Your task to perform on an android device: change notifications settings Image 0: 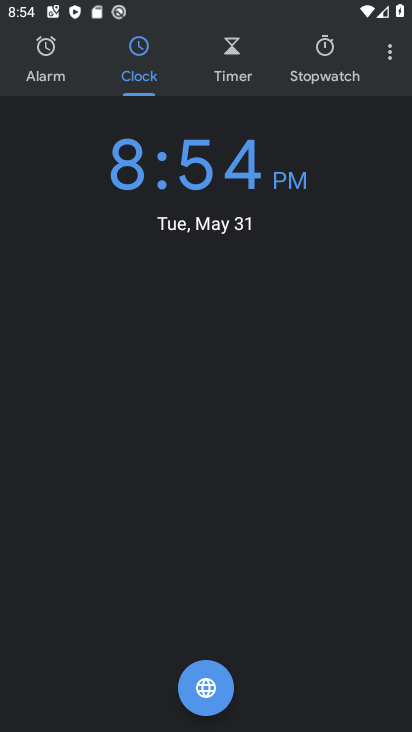
Step 0: press home button
Your task to perform on an android device: change notifications settings Image 1: 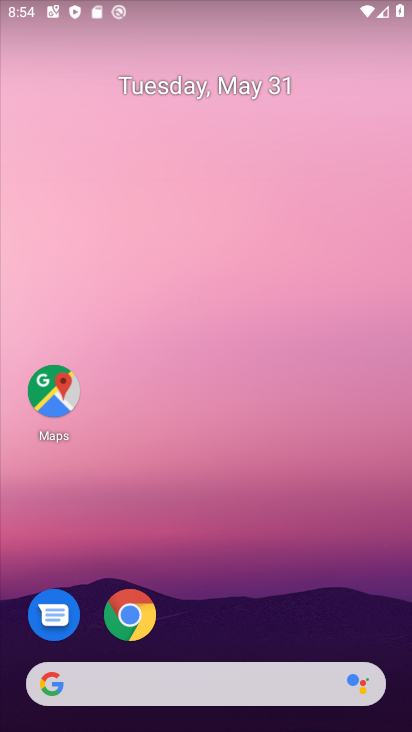
Step 1: drag from (331, 601) to (252, 46)
Your task to perform on an android device: change notifications settings Image 2: 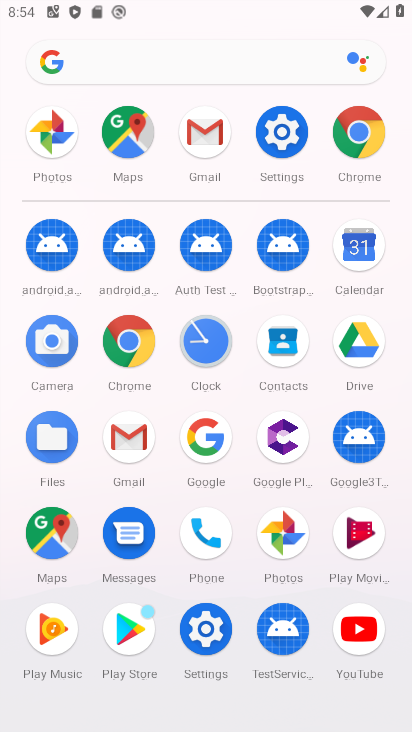
Step 2: click (205, 623)
Your task to perform on an android device: change notifications settings Image 3: 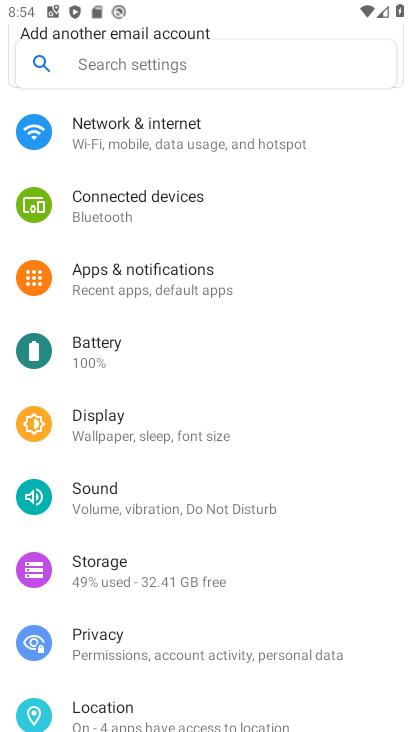
Step 3: click (164, 278)
Your task to perform on an android device: change notifications settings Image 4: 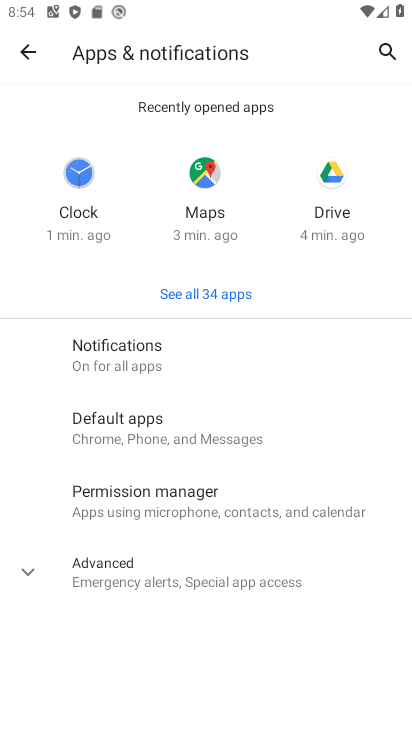
Step 4: click (131, 348)
Your task to perform on an android device: change notifications settings Image 5: 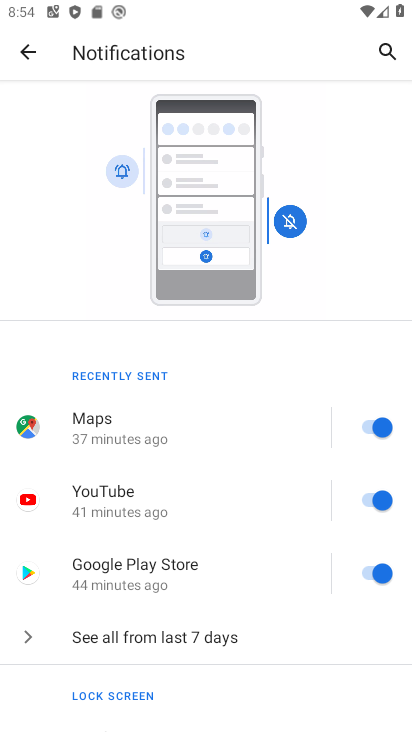
Step 5: drag from (281, 646) to (268, 226)
Your task to perform on an android device: change notifications settings Image 6: 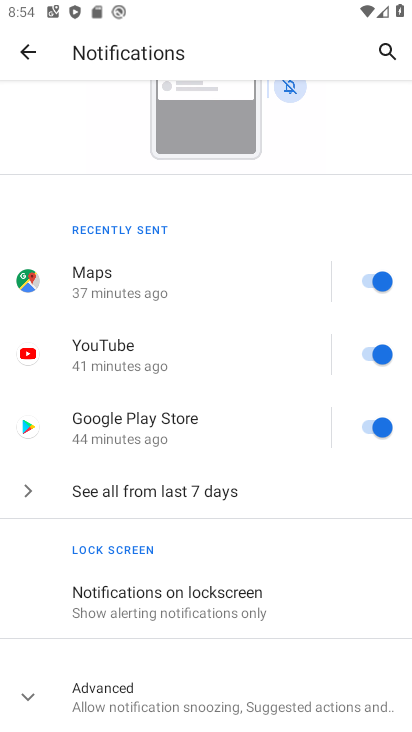
Step 6: click (24, 691)
Your task to perform on an android device: change notifications settings Image 7: 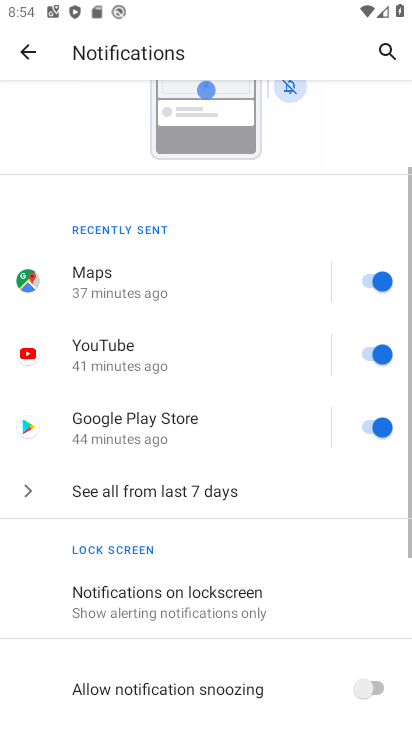
Step 7: drag from (305, 659) to (294, 309)
Your task to perform on an android device: change notifications settings Image 8: 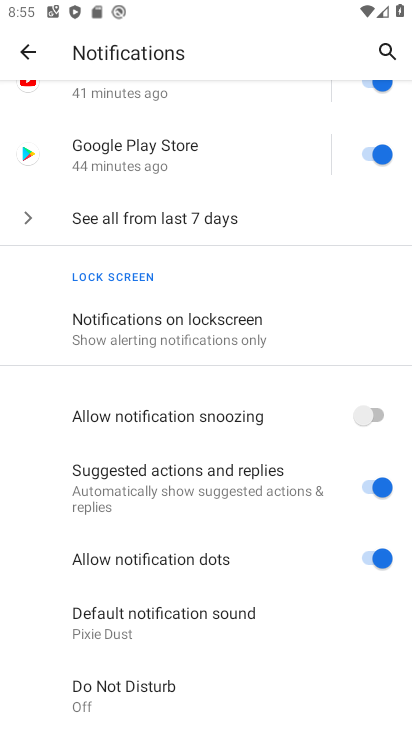
Step 8: drag from (320, 671) to (312, 289)
Your task to perform on an android device: change notifications settings Image 9: 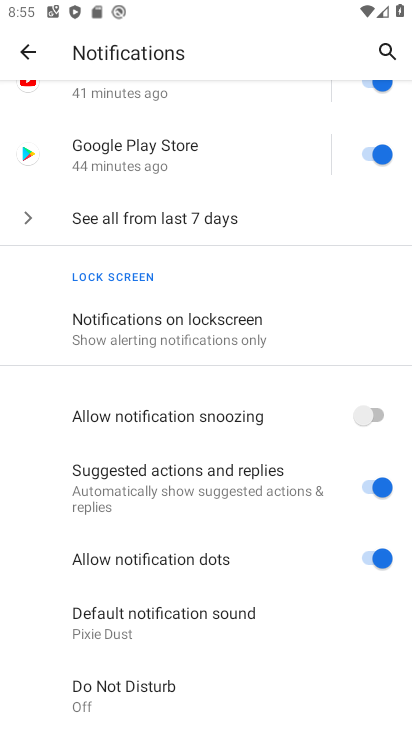
Step 9: click (383, 414)
Your task to perform on an android device: change notifications settings Image 10: 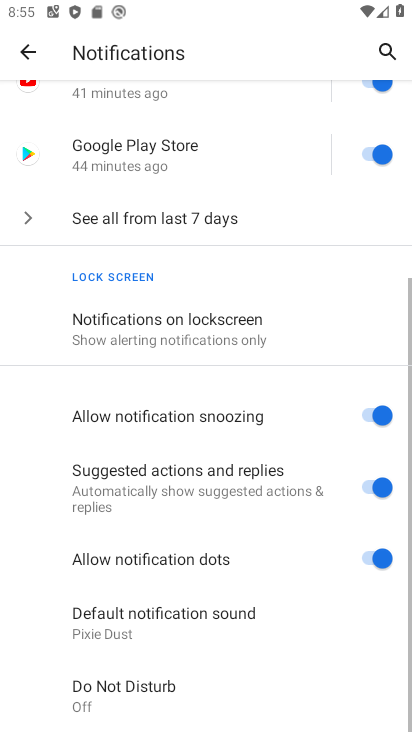
Step 10: click (363, 551)
Your task to perform on an android device: change notifications settings Image 11: 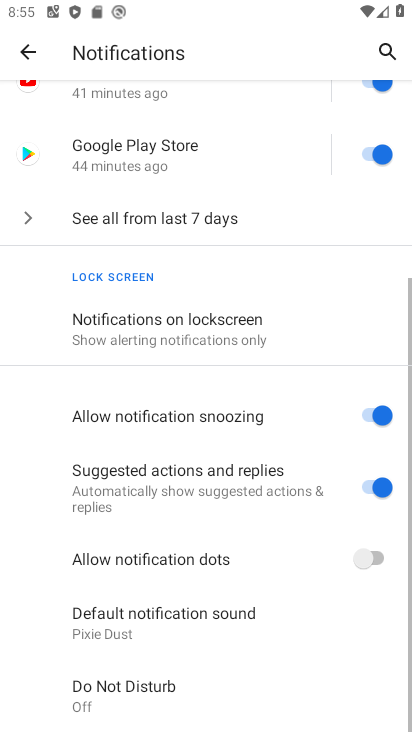
Step 11: task complete